Your task to perform on an android device: Go to sound settings Image 0: 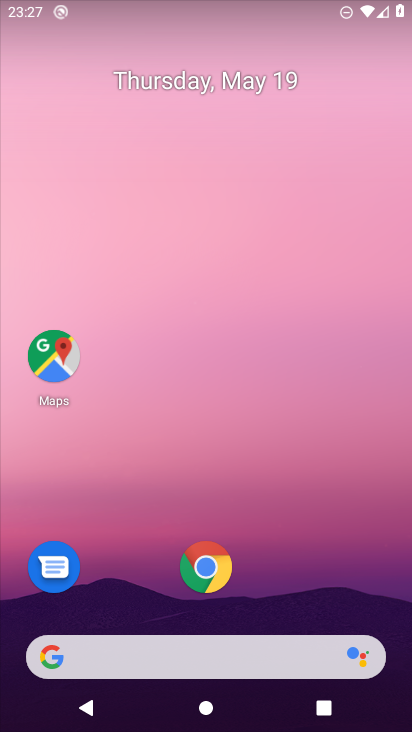
Step 0: drag from (247, 621) to (297, 66)
Your task to perform on an android device: Go to sound settings Image 1: 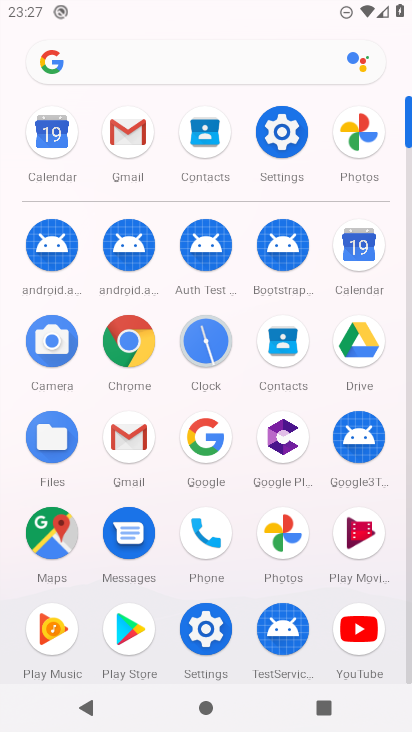
Step 1: click (284, 127)
Your task to perform on an android device: Go to sound settings Image 2: 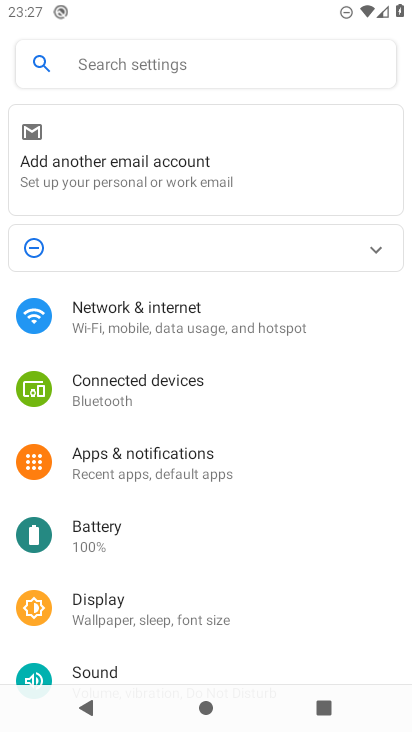
Step 2: click (133, 669)
Your task to perform on an android device: Go to sound settings Image 3: 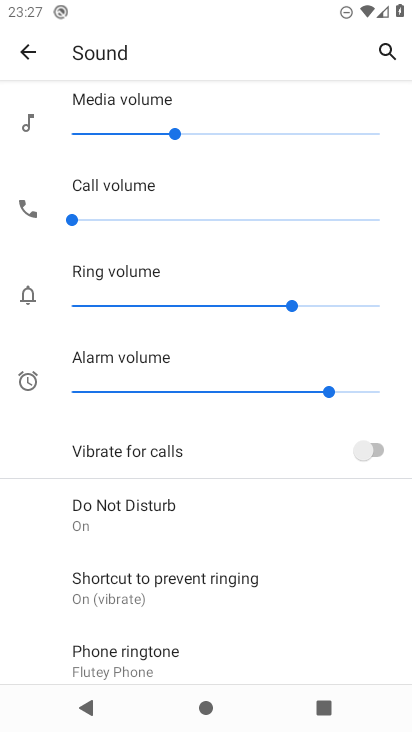
Step 3: drag from (196, 564) to (253, 173)
Your task to perform on an android device: Go to sound settings Image 4: 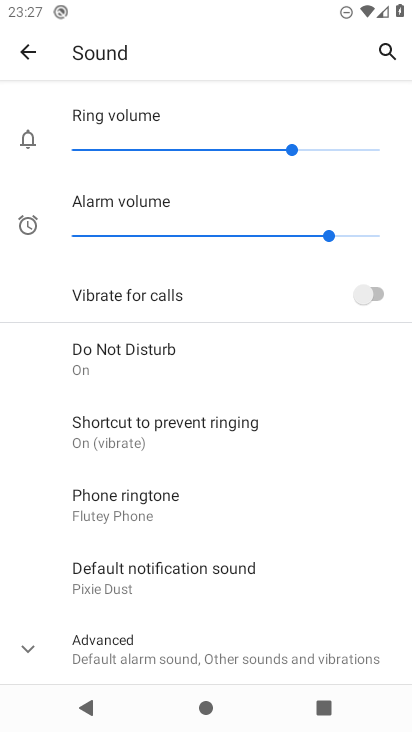
Step 4: click (43, 638)
Your task to perform on an android device: Go to sound settings Image 5: 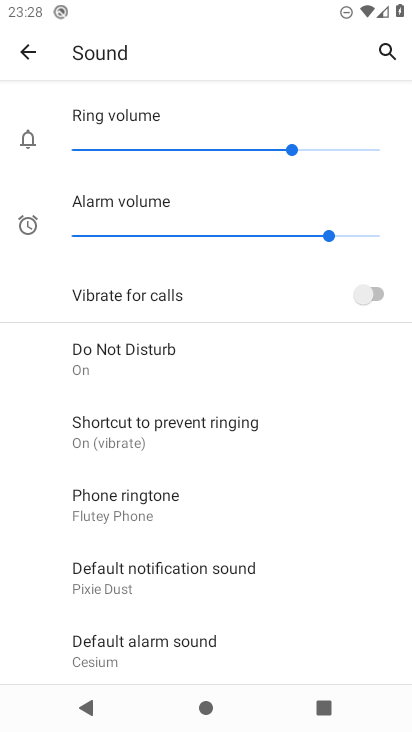
Step 5: task complete